Your task to perform on an android device: set an alarm Image 0: 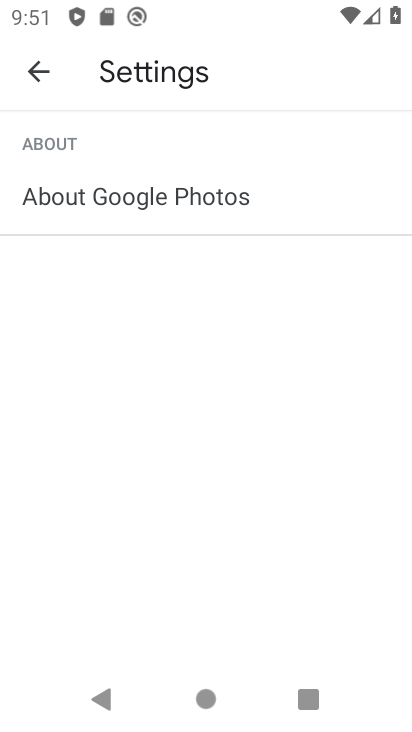
Step 0: press home button
Your task to perform on an android device: set an alarm Image 1: 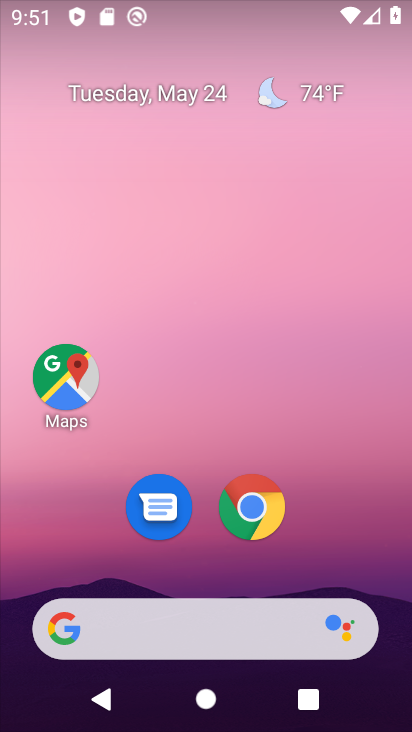
Step 1: drag from (224, 715) to (227, 161)
Your task to perform on an android device: set an alarm Image 2: 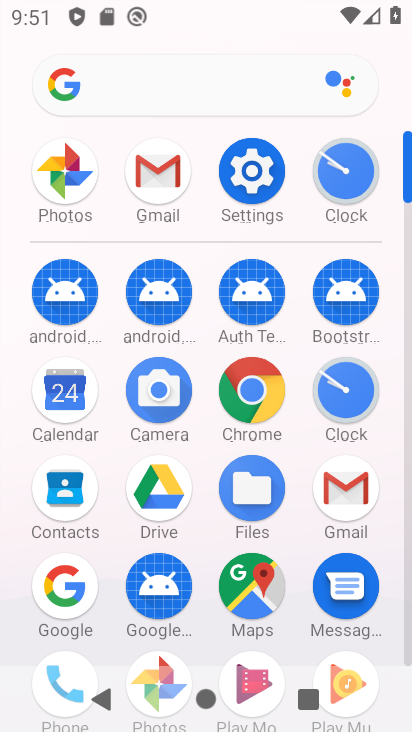
Step 2: click (340, 395)
Your task to perform on an android device: set an alarm Image 3: 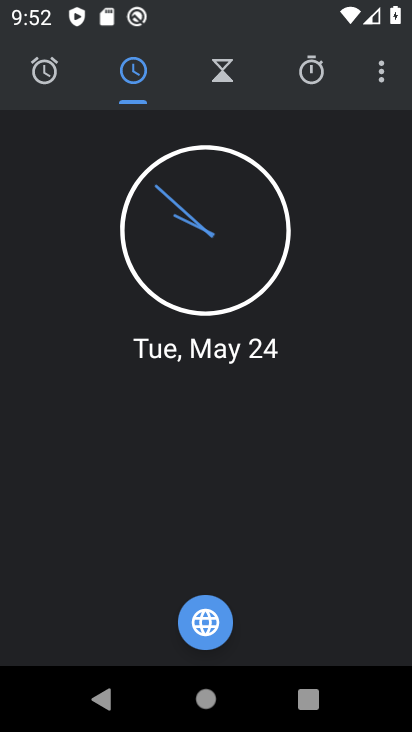
Step 3: click (44, 71)
Your task to perform on an android device: set an alarm Image 4: 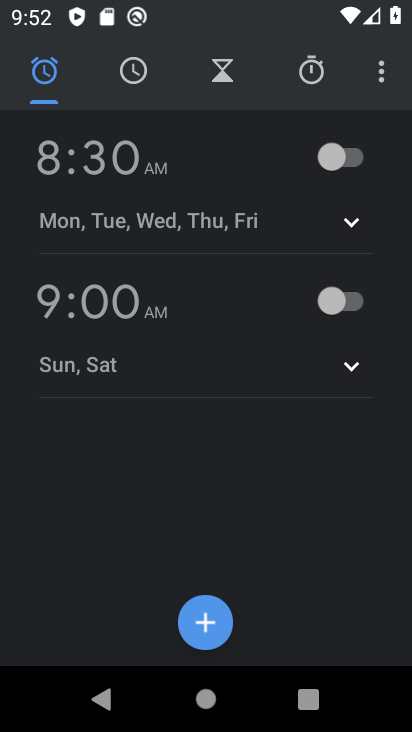
Step 4: click (212, 620)
Your task to perform on an android device: set an alarm Image 5: 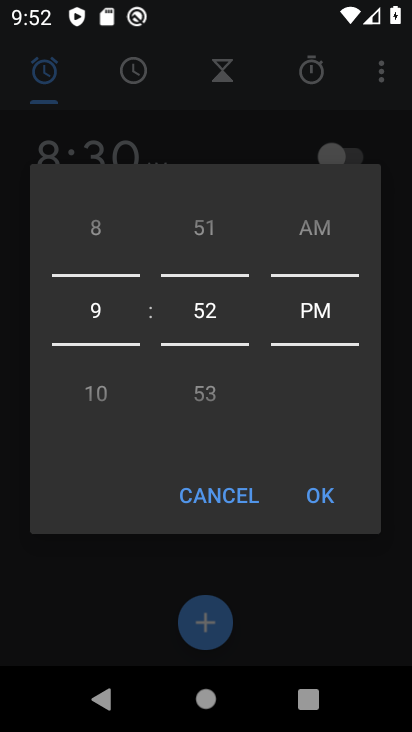
Step 5: drag from (91, 393) to (85, 139)
Your task to perform on an android device: set an alarm Image 6: 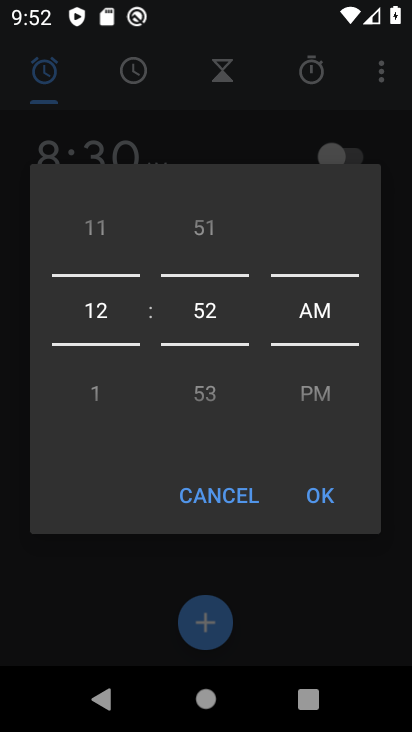
Step 6: drag from (207, 223) to (227, 428)
Your task to perform on an android device: set an alarm Image 7: 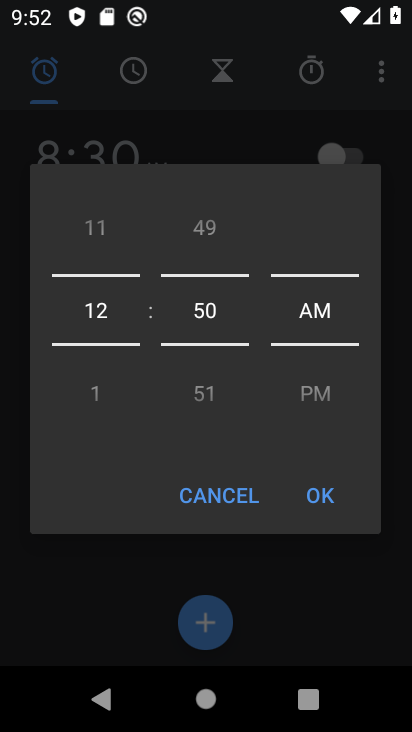
Step 7: click (318, 494)
Your task to perform on an android device: set an alarm Image 8: 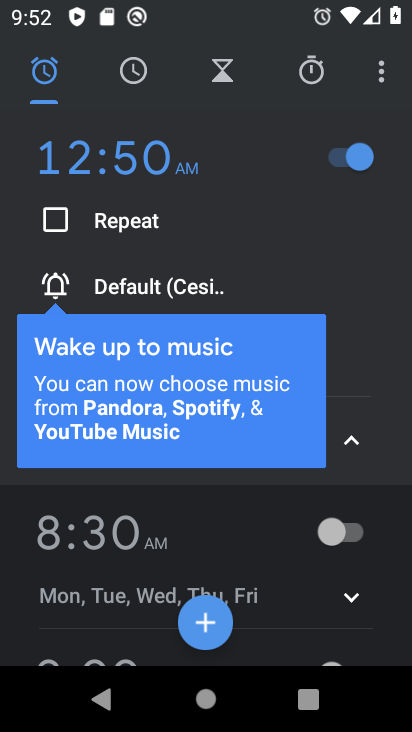
Step 8: task complete